Your task to perform on an android device: turn pop-ups on in chrome Image 0: 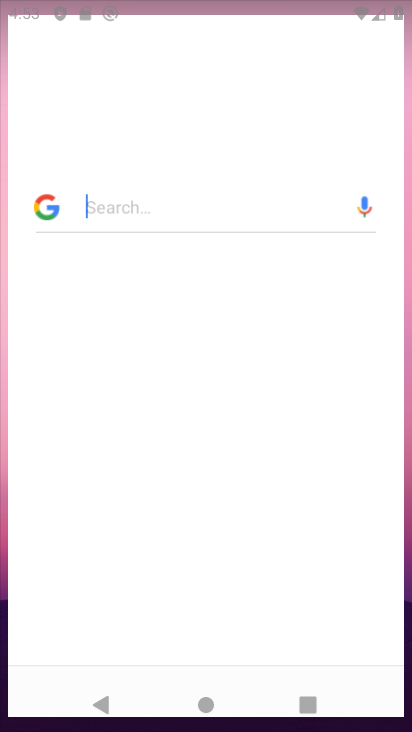
Step 0: drag from (279, 592) to (139, 17)
Your task to perform on an android device: turn pop-ups on in chrome Image 1: 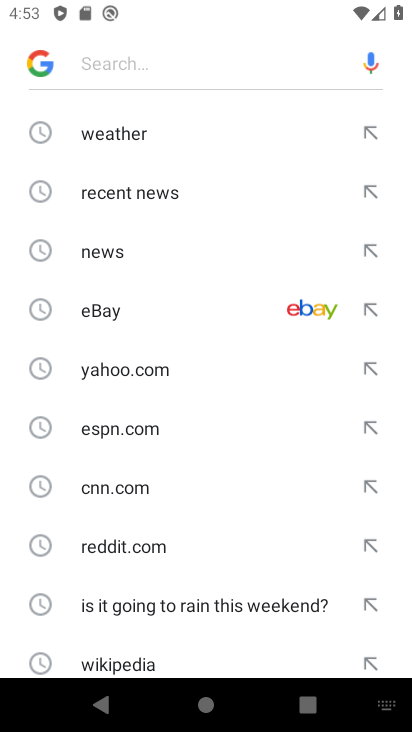
Step 1: press back button
Your task to perform on an android device: turn pop-ups on in chrome Image 2: 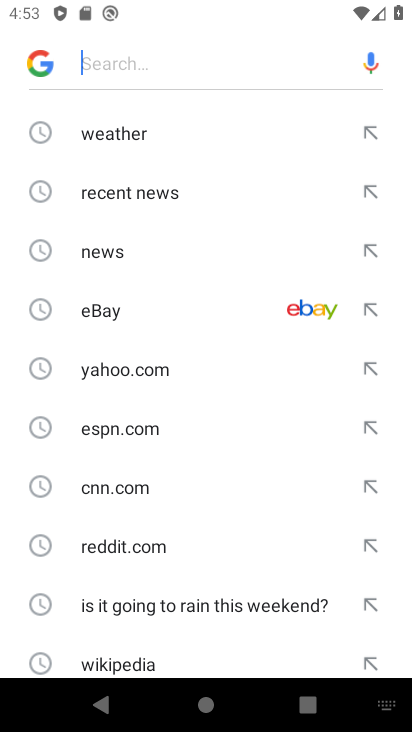
Step 2: press back button
Your task to perform on an android device: turn pop-ups on in chrome Image 3: 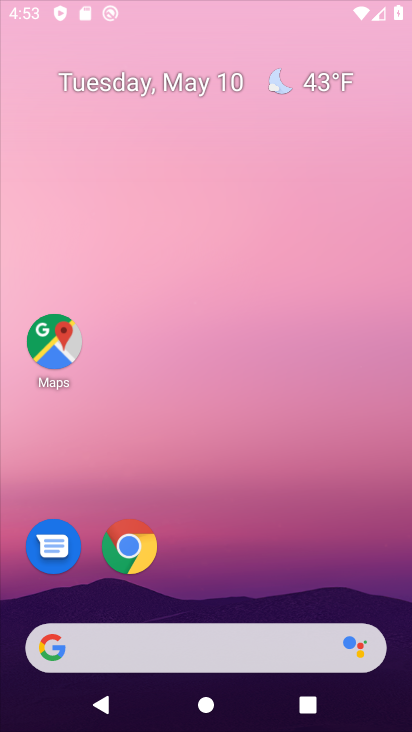
Step 3: press back button
Your task to perform on an android device: turn pop-ups on in chrome Image 4: 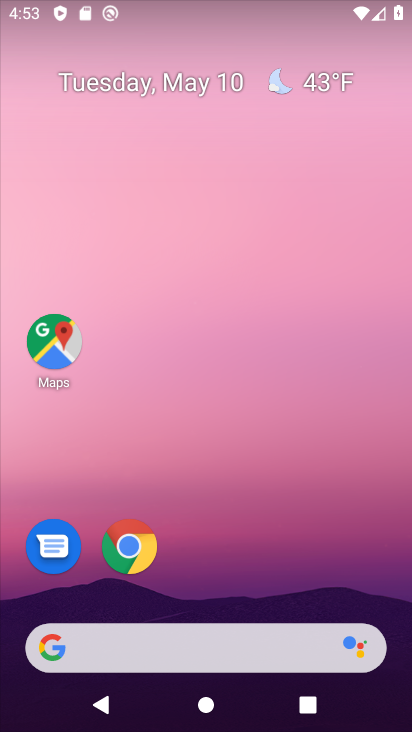
Step 4: click (131, 550)
Your task to perform on an android device: turn pop-ups on in chrome Image 5: 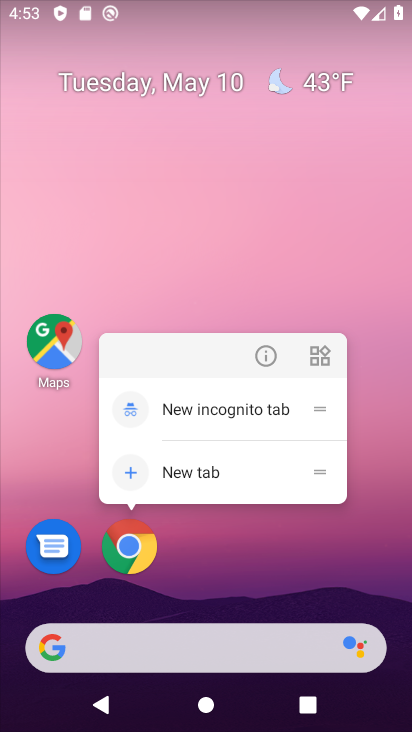
Step 5: click (131, 550)
Your task to perform on an android device: turn pop-ups on in chrome Image 6: 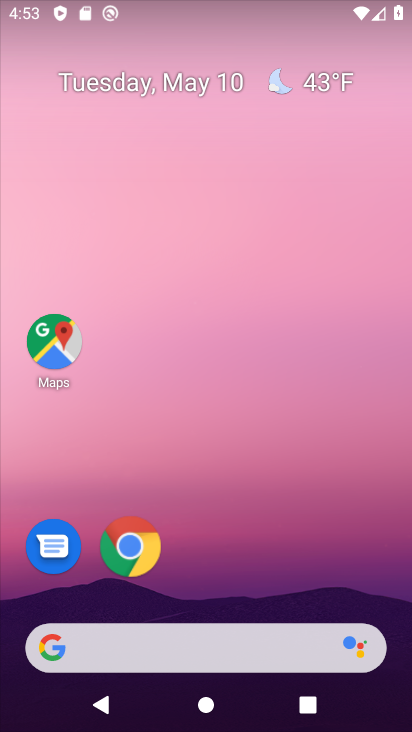
Step 6: click (132, 556)
Your task to perform on an android device: turn pop-ups on in chrome Image 7: 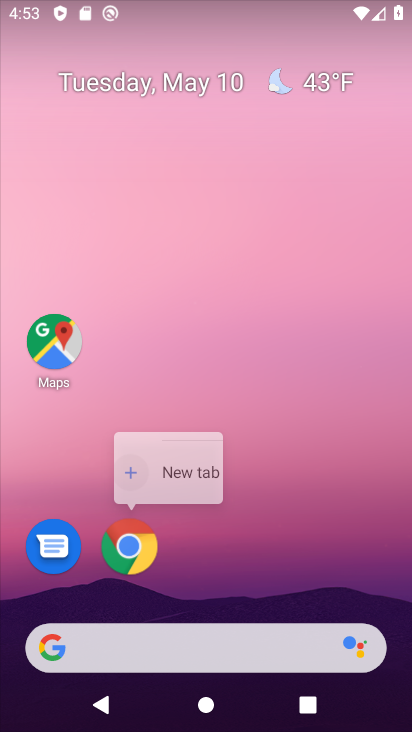
Step 7: click (132, 556)
Your task to perform on an android device: turn pop-ups on in chrome Image 8: 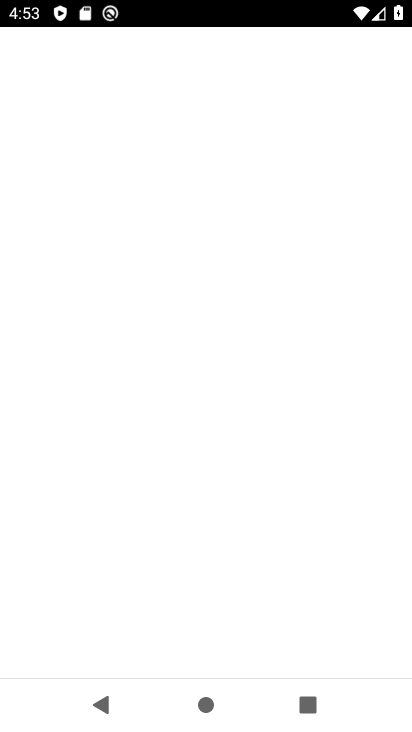
Step 8: click (132, 556)
Your task to perform on an android device: turn pop-ups on in chrome Image 9: 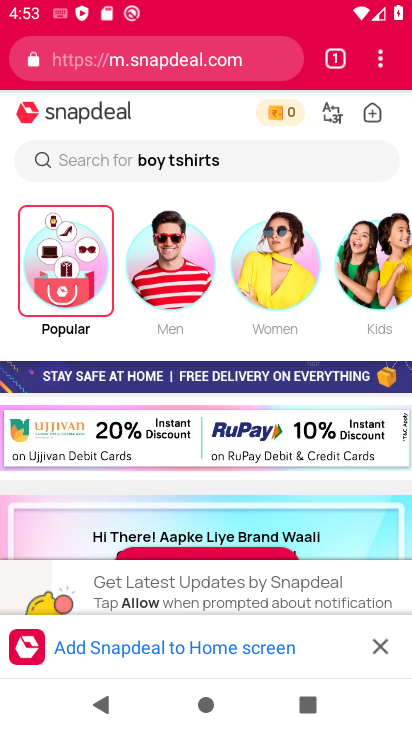
Step 9: drag from (372, 58) to (162, 572)
Your task to perform on an android device: turn pop-ups on in chrome Image 10: 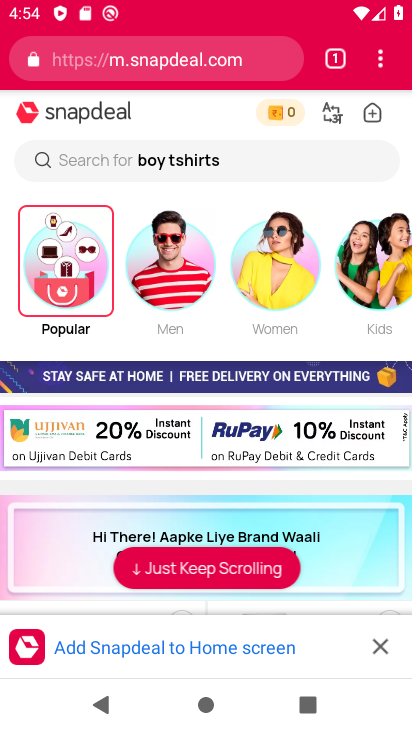
Step 10: click (163, 569)
Your task to perform on an android device: turn pop-ups on in chrome Image 11: 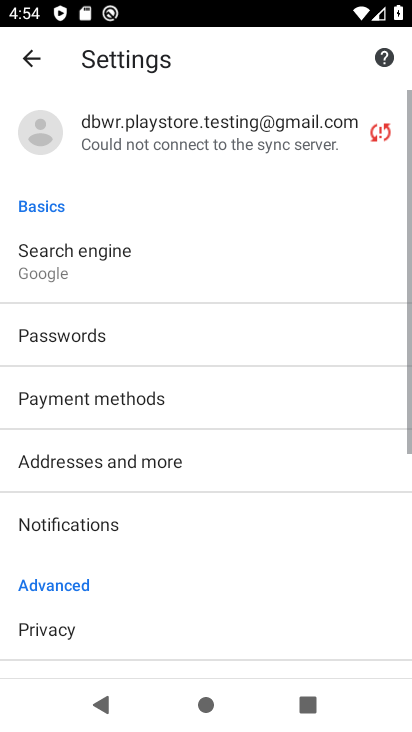
Step 11: click (164, 568)
Your task to perform on an android device: turn pop-ups on in chrome Image 12: 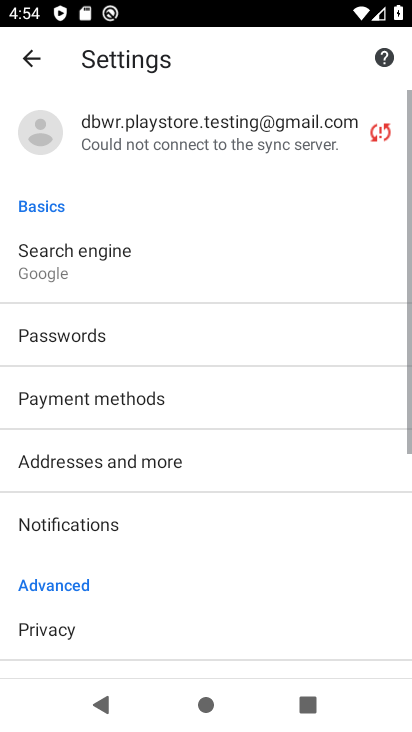
Step 12: click (165, 577)
Your task to perform on an android device: turn pop-ups on in chrome Image 13: 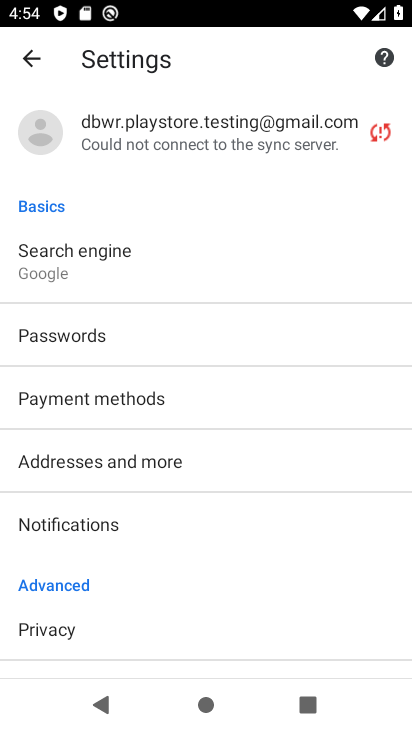
Step 13: drag from (142, 437) to (115, 30)
Your task to perform on an android device: turn pop-ups on in chrome Image 14: 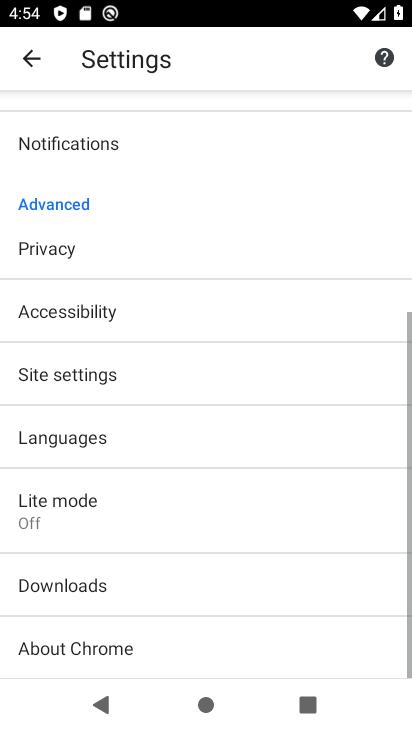
Step 14: drag from (232, 435) to (187, 71)
Your task to perform on an android device: turn pop-ups on in chrome Image 15: 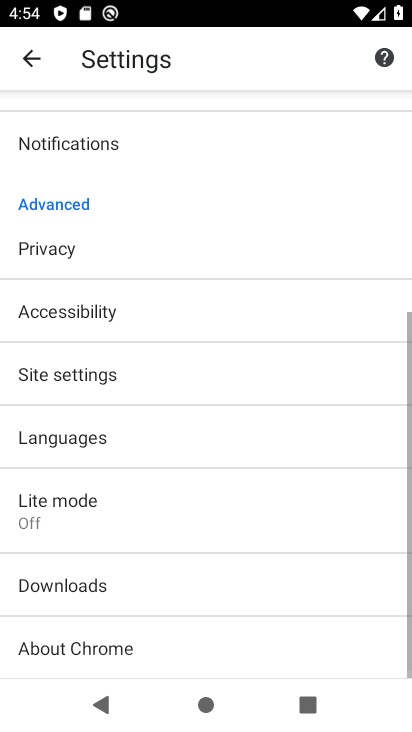
Step 15: drag from (181, 445) to (94, 15)
Your task to perform on an android device: turn pop-ups on in chrome Image 16: 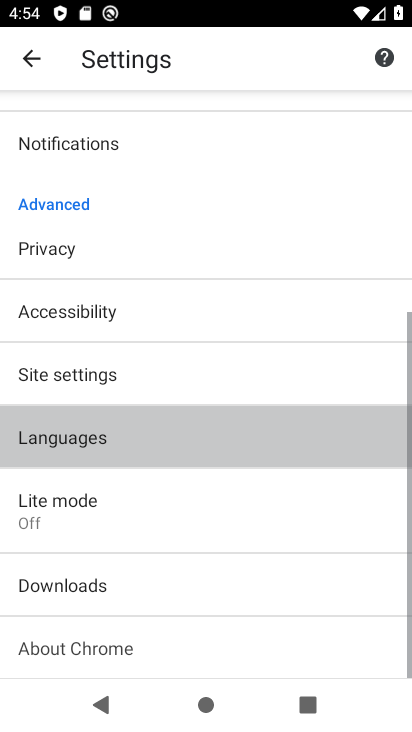
Step 16: drag from (232, 525) to (187, 147)
Your task to perform on an android device: turn pop-ups on in chrome Image 17: 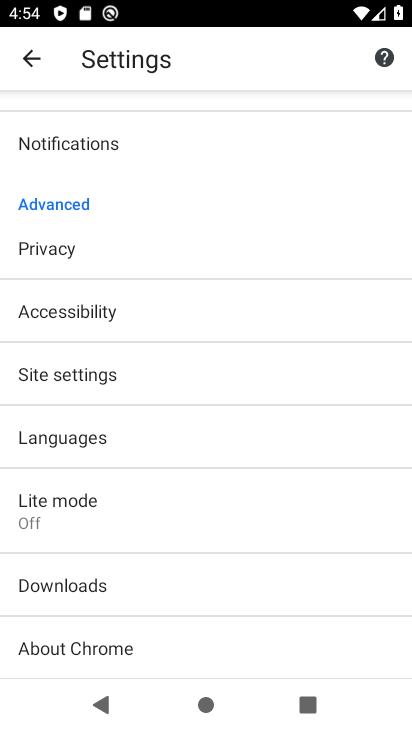
Step 17: click (51, 367)
Your task to perform on an android device: turn pop-ups on in chrome Image 18: 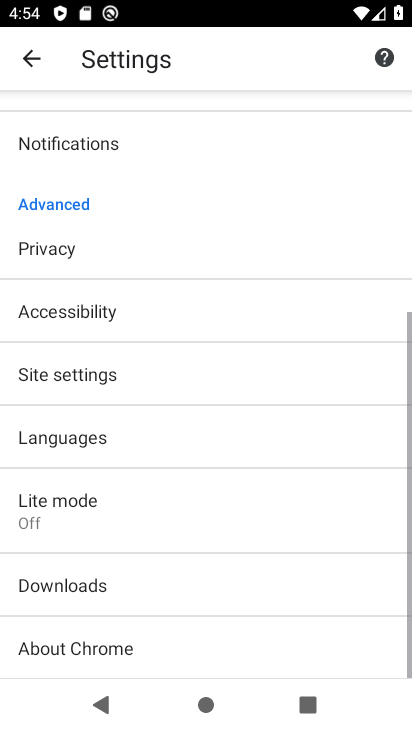
Step 18: click (71, 406)
Your task to perform on an android device: turn pop-ups on in chrome Image 19: 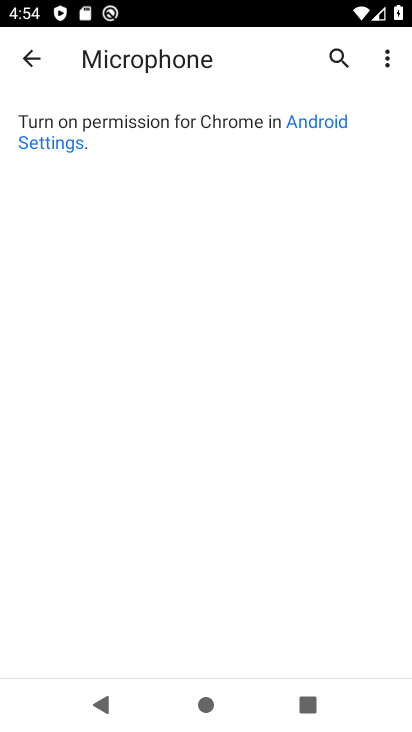
Step 19: click (33, 55)
Your task to perform on an android device: turn pop-ups on in chrome Image 20: 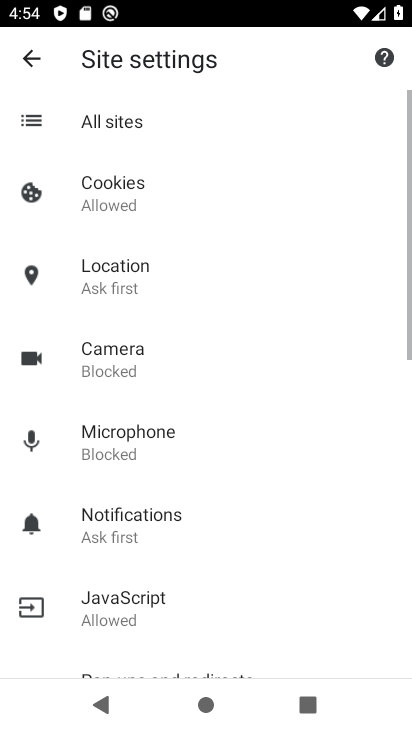
Step 20: drag from (173, 545) to (106, 116)
Your task to perform on an android device: turn pop-ups on in chrome Image 21: 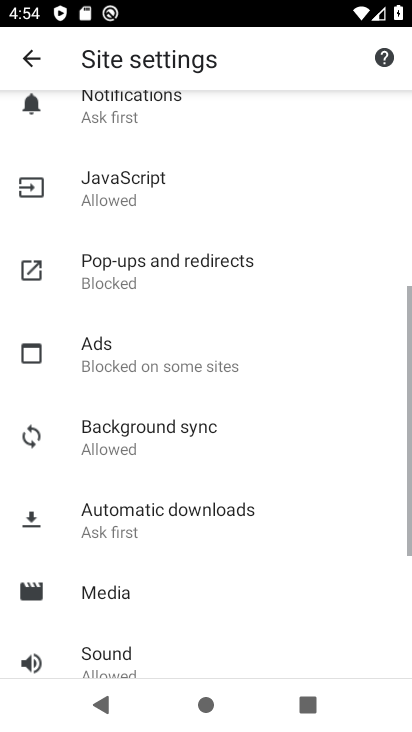
Step 21: drag from (232, 478) to (231, 198)
Your task to perform on an android device: turn pop-ups on in chrome Image 22: 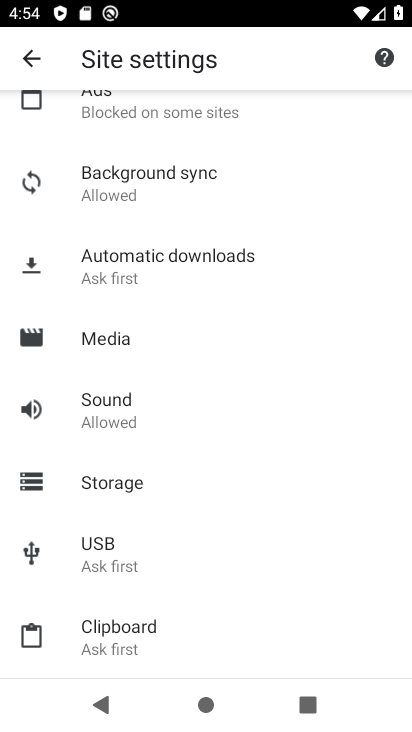
Step 22: drag from (132, 353) to (108, 158)
Your task to perform on an android device: turn pop-ups on in chrome Image 23: 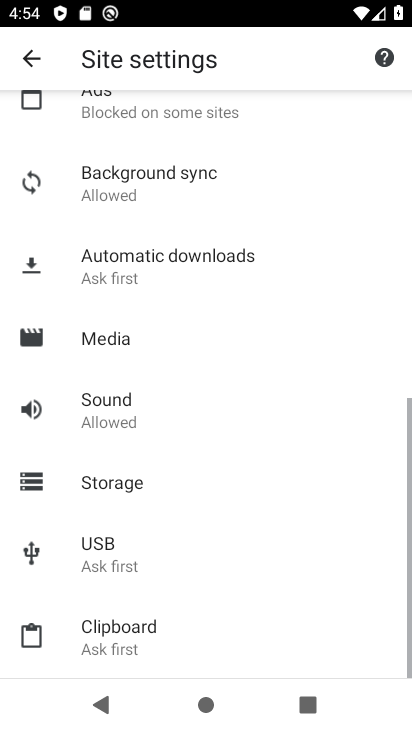
Step 23: drag from (123, 282) to (165, 622)
Your task to perform on an android device: turn pop-ups on in chrome Image 24: 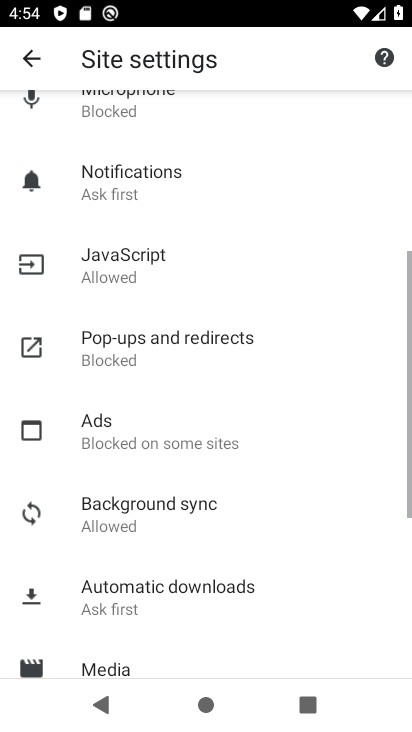
Step 24: drag from (158, 287) to (172, 553)
Your task to perform on an android device: turn pop-ups on in chrome Image 25: 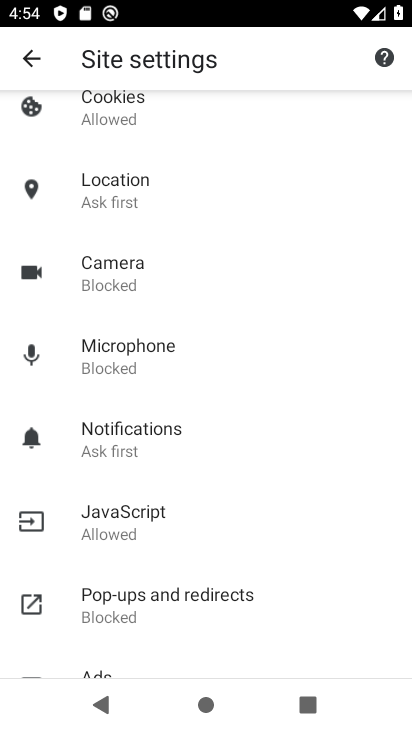
Step 25: click (135, 600)
Your task to perform on an android device: turn pop-ups on in chrome Image 26: 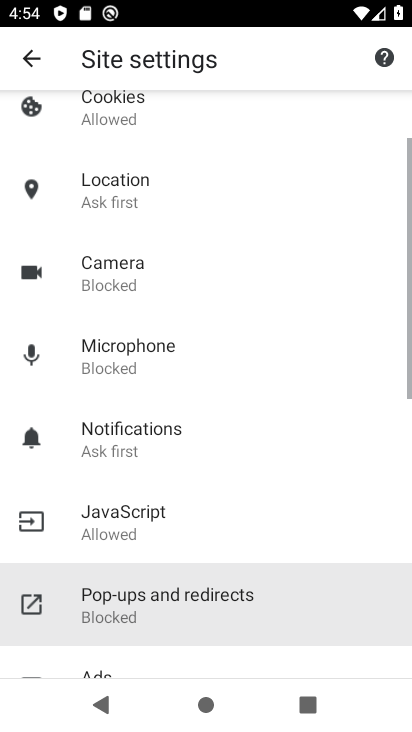
Step 26: click (135, 600)
Your task to perform on an android device: turn pop-ups on in chrome Image 27: 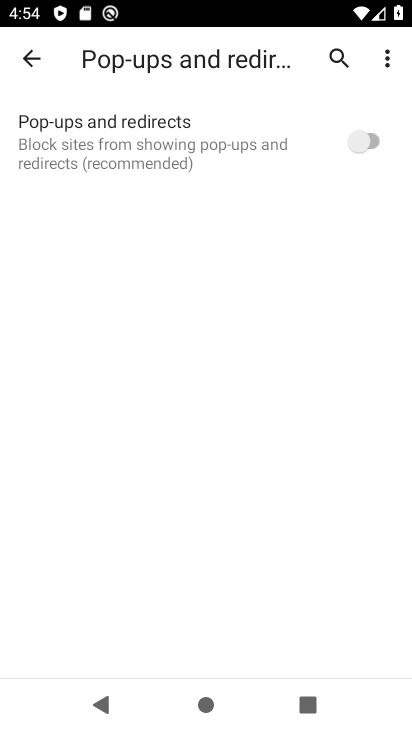
Step 27: click (136, 601)
Your task to perform on an android device: turn pop-ups on in chrome Image 28: 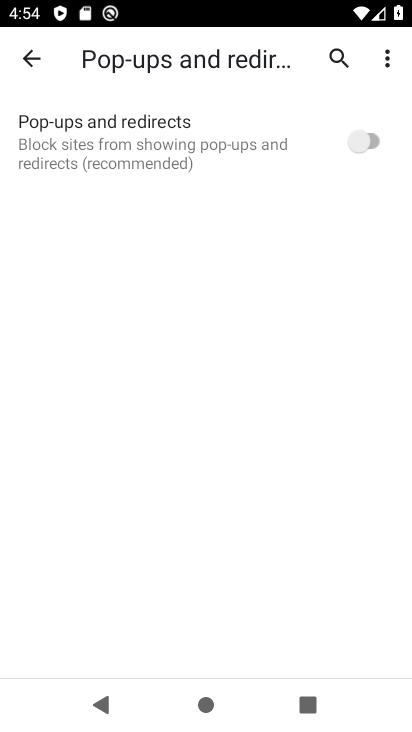
Step 28: click (353, 138)
Your task to perform on an android device: turn pop-ups on in chrome Image 29: 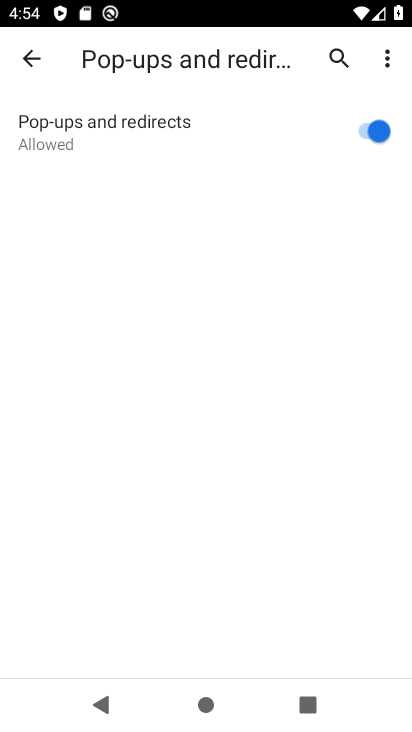
Step 29: task complete